Your task to perform on an android device: change the upload size in google photos Image 0: 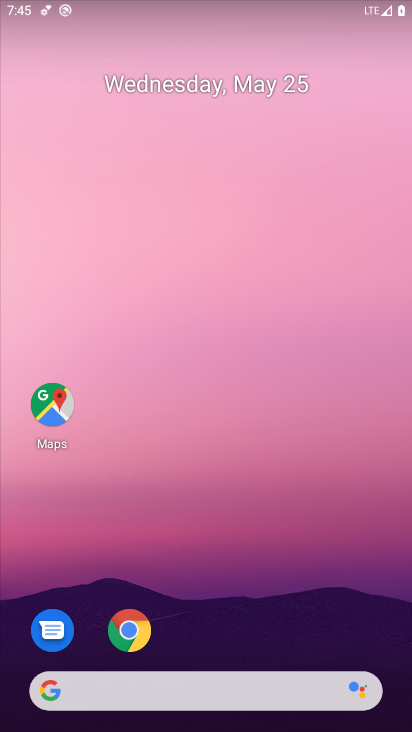
Step 0: drag from (253, 682) to (277, 300)
Your task to perform on an android device: change the upload size in google photos Image 1: 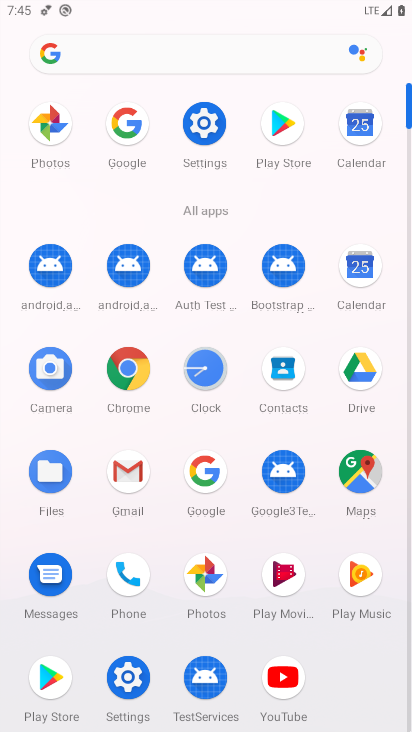
Step 1: click (207, 575)
Your task to perform on an android device: change the upload size in google photos Image 2: 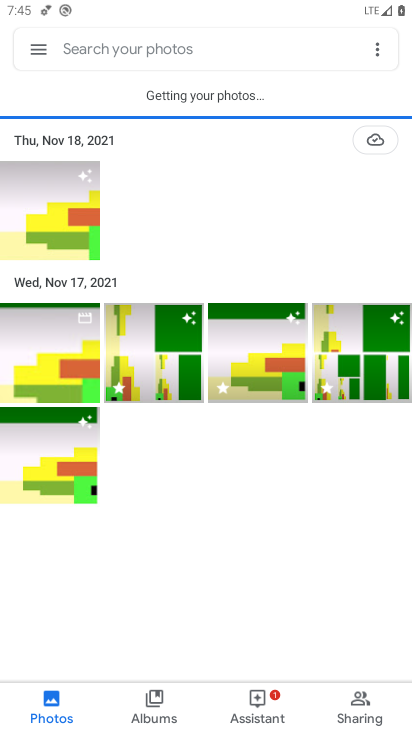
Step 2: click (37, 49)
Your task to perform on an android device: change the upload size in google photos Image 3: 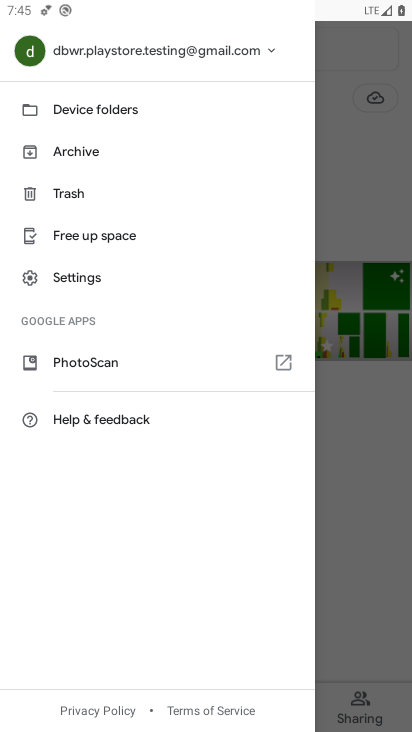
Step 3: click (89, 277)
Your task to perform on an android device: change the upload size in google photos Image 4: 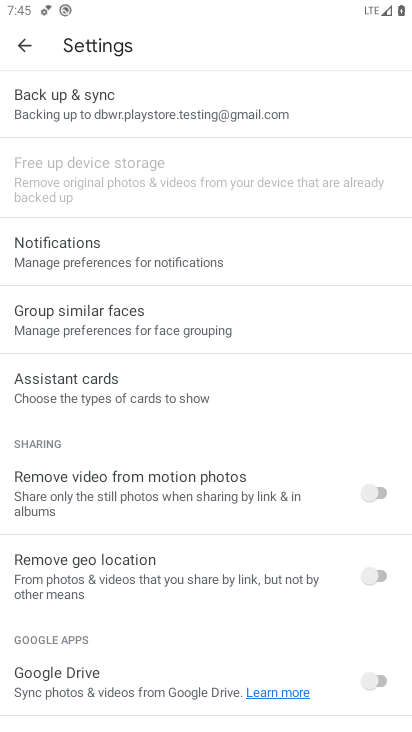
Step 4: click (114, 90)
Your task to perform on an android device: change the upload size in google photos Image 5: 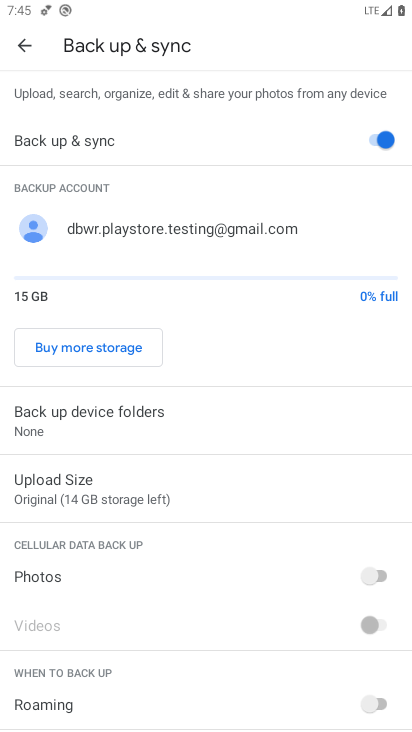
Step 5: click (94, 486)
Your task to perform on an android device: change the upload size in google photos Image 6: 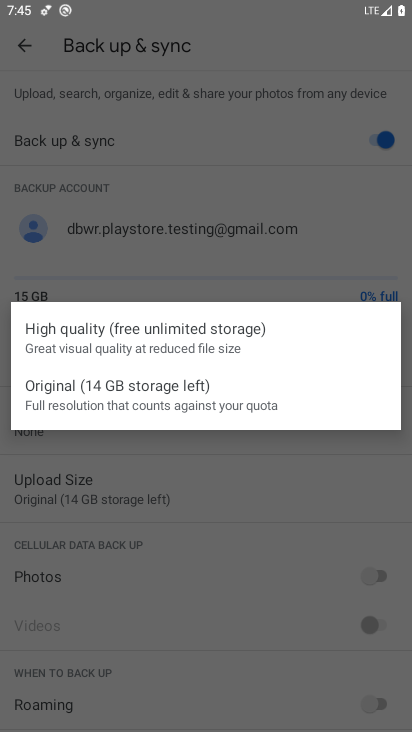
Step 6: click (72, 323)
Your task to perform on an android device: change the upload size in google photos Image 7: 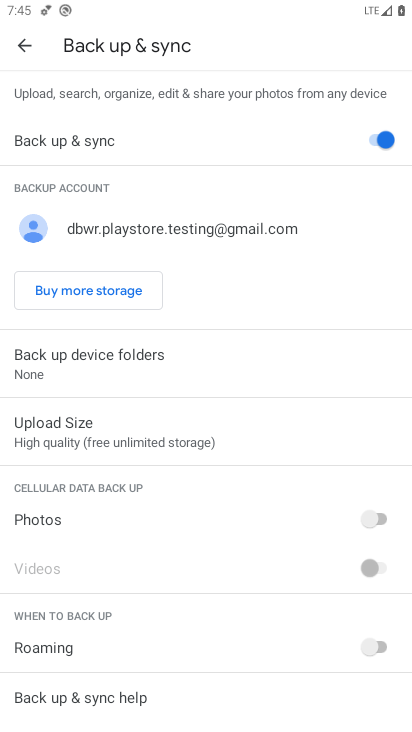
Step 7: task complete